Your task to perform on an android device: turn off notifications settings in the gmail app Image 0: 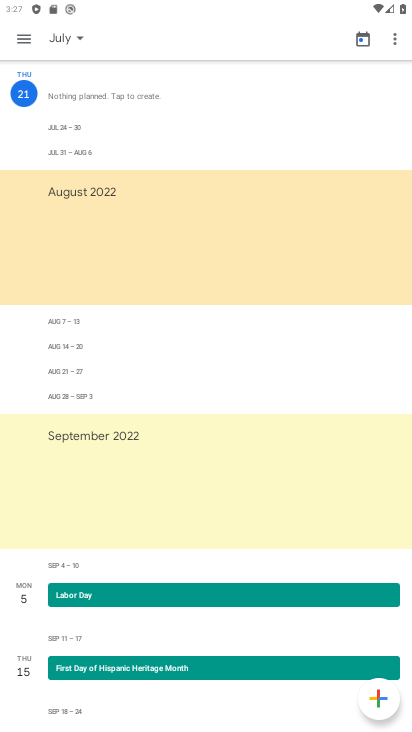
Step 0: press home button
Your task to perform on an android device: turn off notifications settings in the gmail app Image 1: 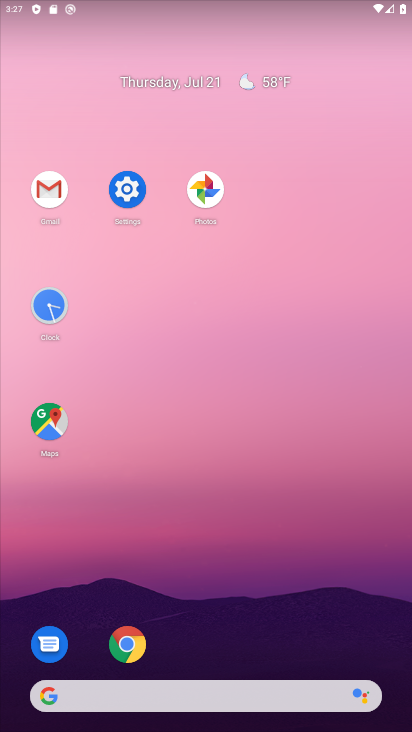
Step 1: drag from (243, 561) to (282, 211)
Your task to perform on an android device: turn off notifications settings in the gmail app Image 2: 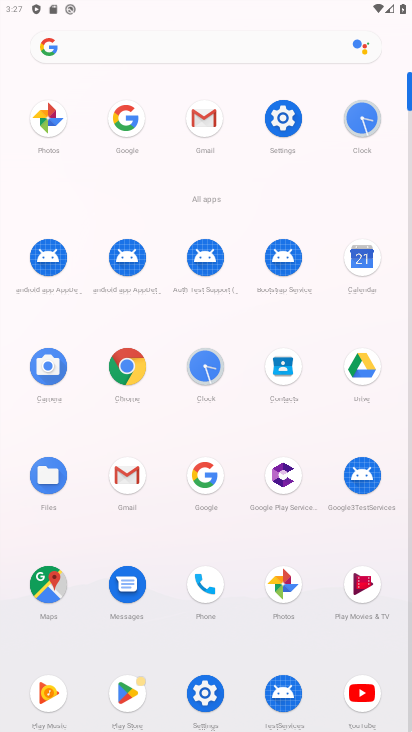
Step 2: click (202, 121)
Your task to perform on an android device: turn off notifications settings in the gmail app Image 3: 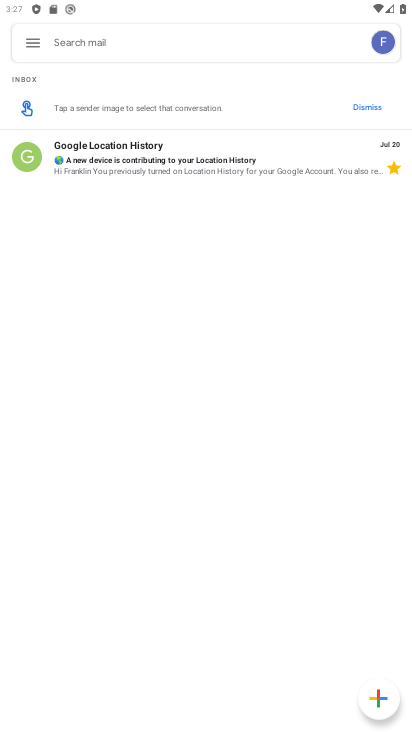
Step 3: click (30, 55)
Your task to perform on an android device: turn off notifications settings in the gmail app Image 4: 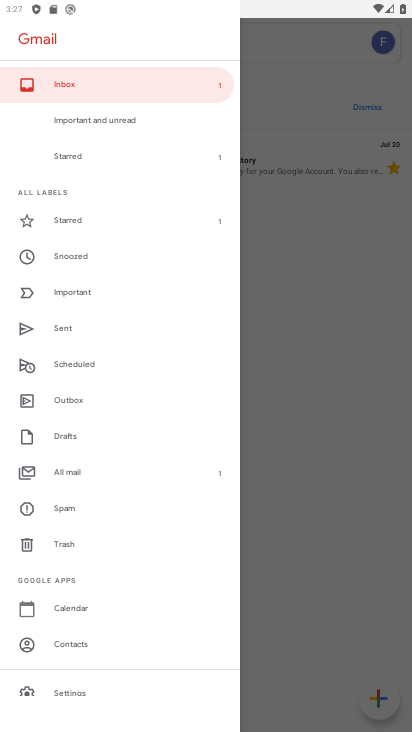
Step 4: drag from (100, 594) to (150, 317)
Your task to perform on an android device: turn off notifications settings in the gmail app Image 5: 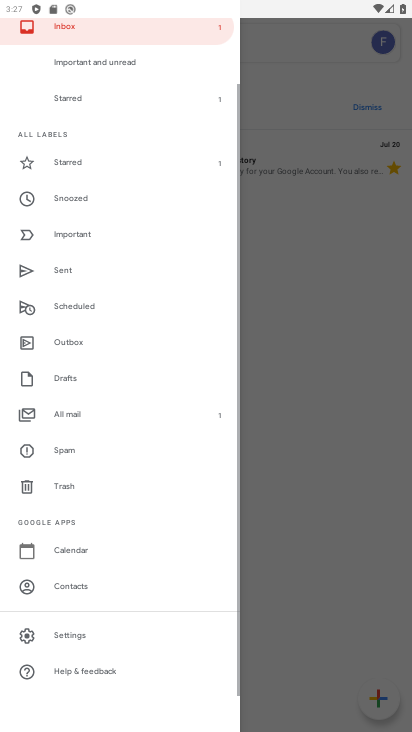
Step 5: click (102, 622)
Your task to perform on an android device: turn off notifications settings in the gmail app Image 6: 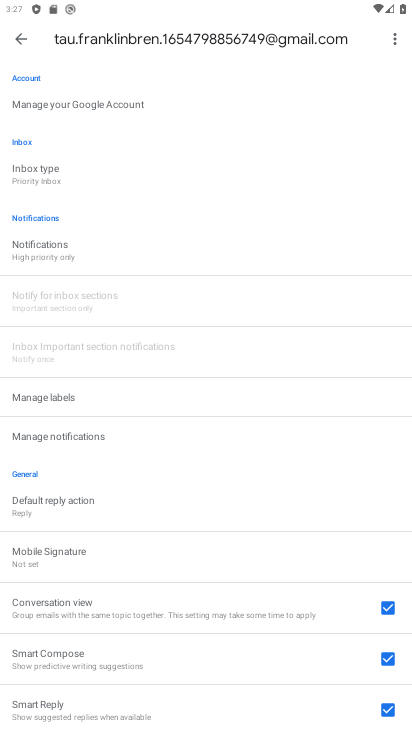
Step 6: click (88, 252)
Your task to perform on an android device: turn off notifications settings in the gmail app Image 7: 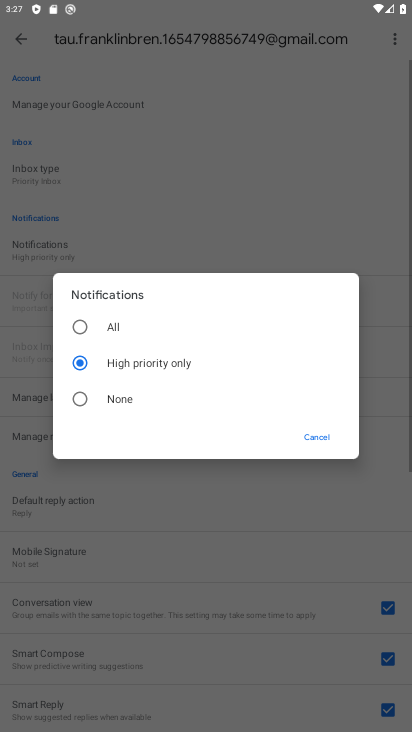
Step 7: click (97, 395)
Your task to perform on an android device: turn off notifications settings in the gmail app Image 8: 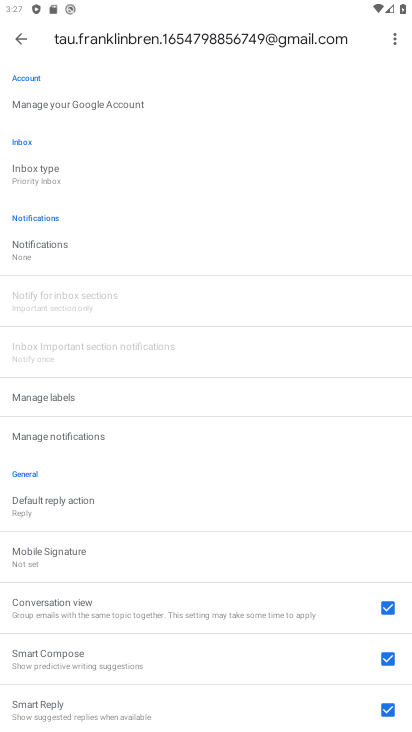
Step 8: task complete